Your task to perform on an android device: change the clock display to analog Image 0: 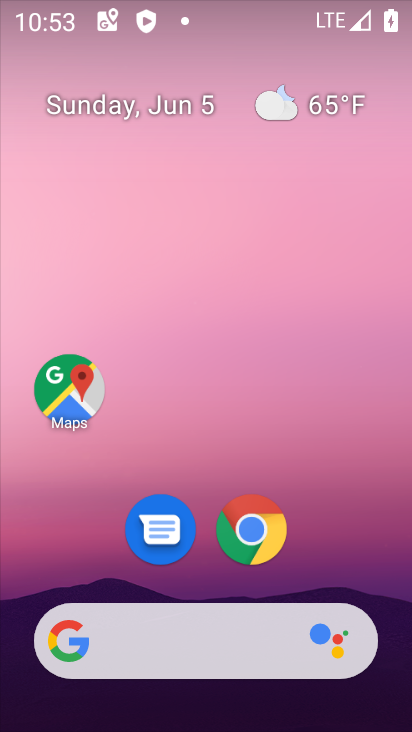
Step 0: drag from (203, 704) to (307, 19)
Your task to perform on an android device: change the clock display to analog Image 1: 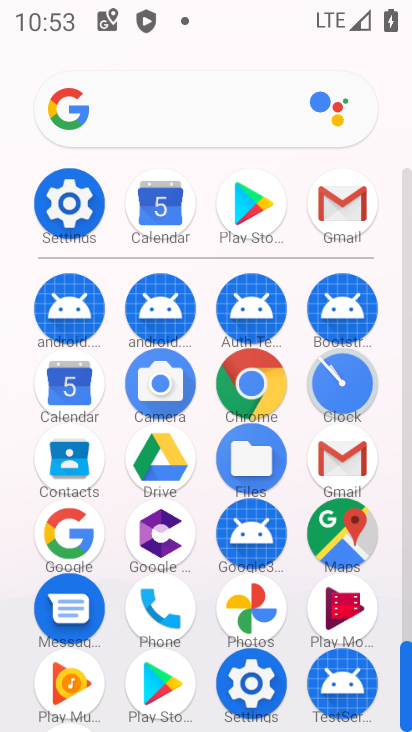
Step 1: click (72, 198)
Your task to perform on an android device: change the clock display to analog Image 2: 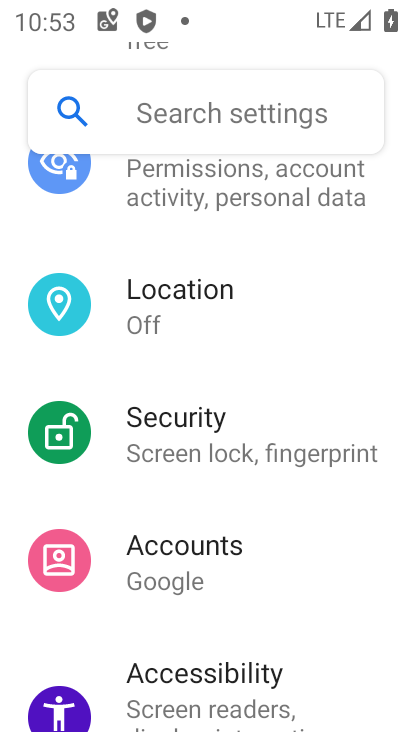
Step 2: press home button
Your task to perform on an android device: change the clock display to analog Image 3: 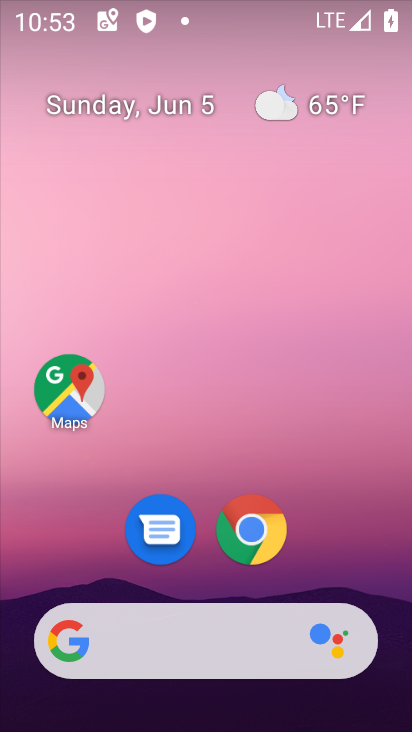
Step 3: drag from (233, 695) to (326, 61)
Your task to perform on an android device: change the clock display to analog Image 4: 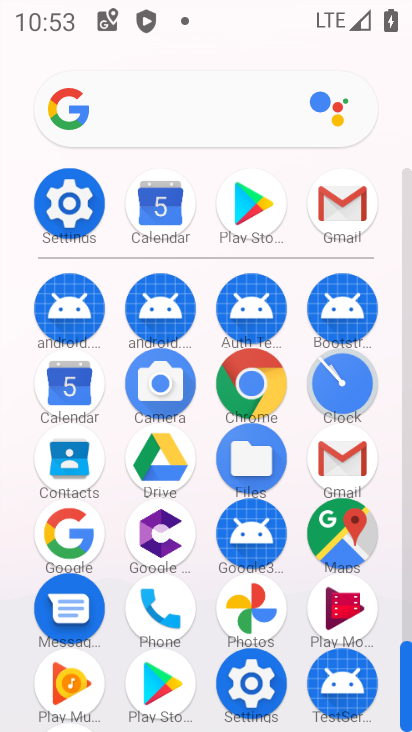
Step 4: click (347, 392)
Your task to perform on an android device: change the clock display to analog Image 5: 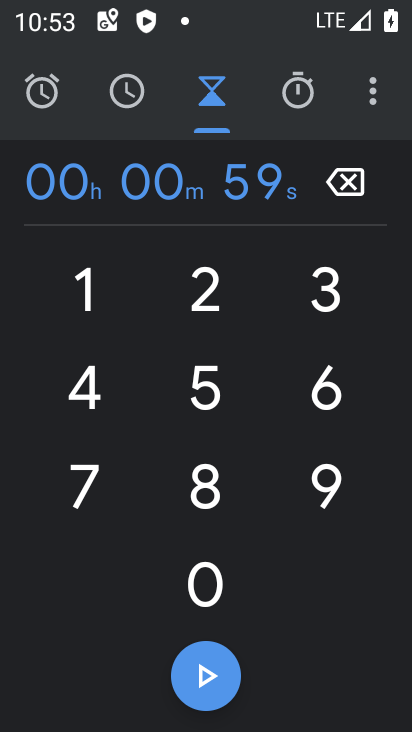
Step 5: click (375, 90)
Your task to perform on an android device: change the clock display to analog Image 6: 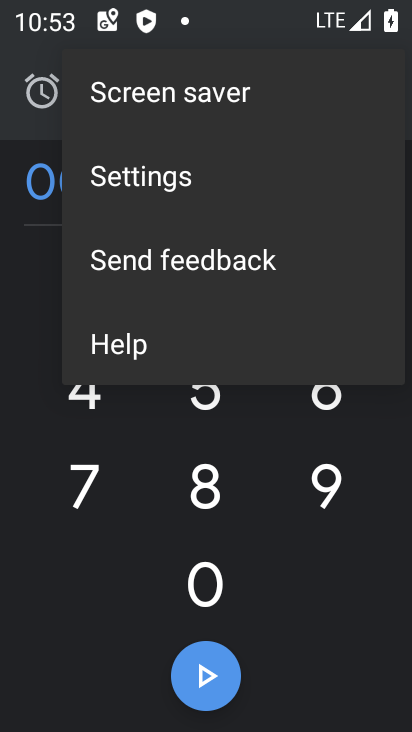
Step 6: click (210, 187)
Your task to perform on an android device: change the clock display to analog Image 7: 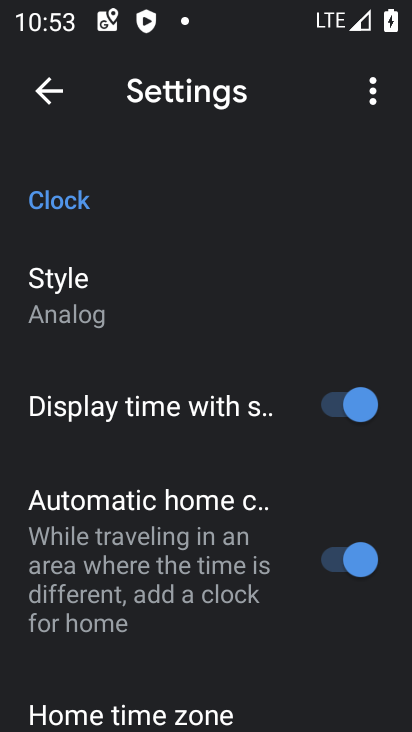
Step 7: task complete